Your task to perform on an android device: turn on bluetooth scan Image 0: 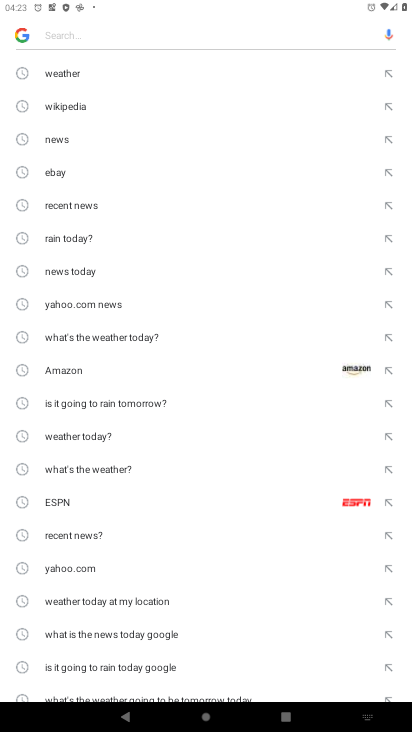
Step 0: press home button
Your task to perform on an android device: turn on bluetooth scan Image 1: 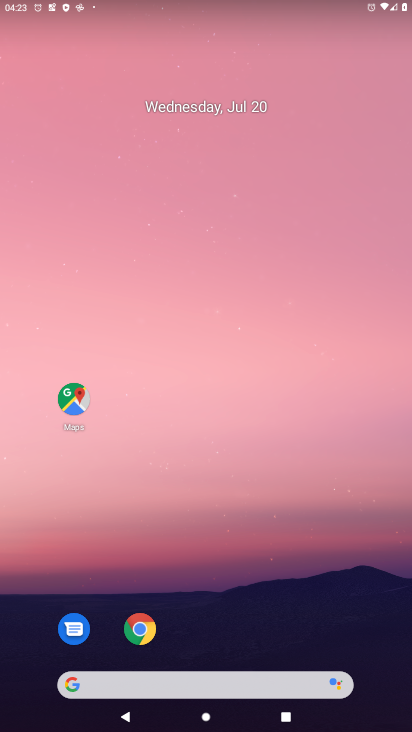
Step 1: drag from (395, 655) to (367, 180)
Your task to perform on an android device: turn on bluetooth scan Image 2: 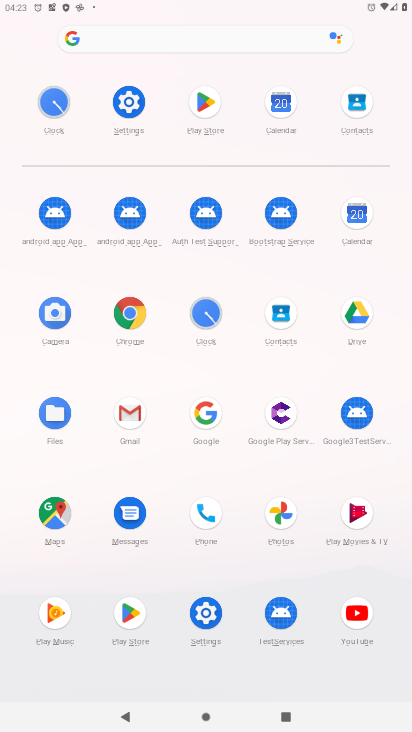
Step 2: click (205, 611)
Your task to perform on an android device: turn on bluetooth scan Image 3: 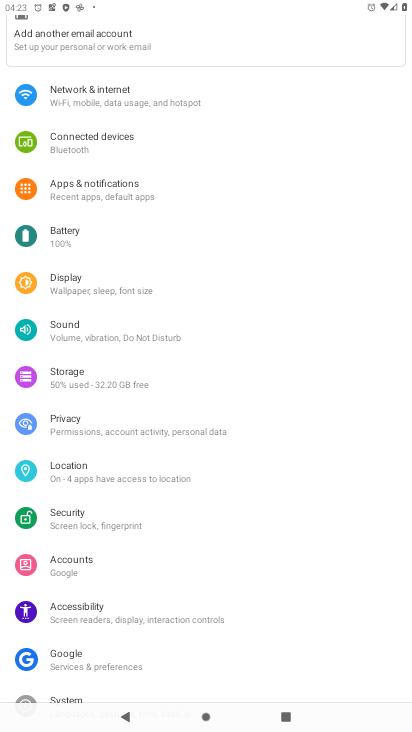
Step 3: click (78, 469)
Your task to perform on an android device: turn on bluetooth scan Image 4: 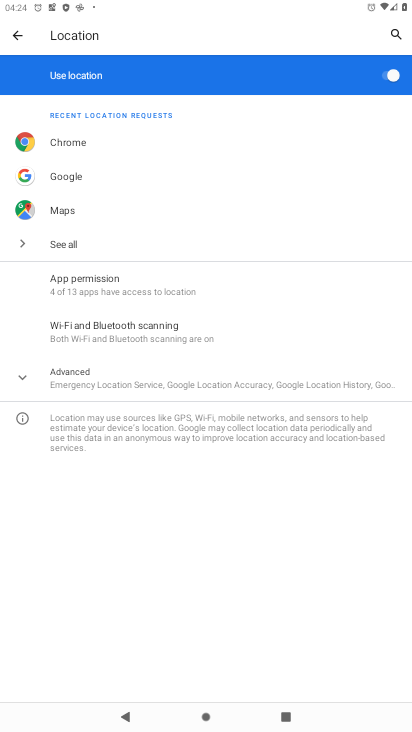
Step 4: click (99, 327)
Your task to perform on an android device: turn on bluetooth scan Image 5: 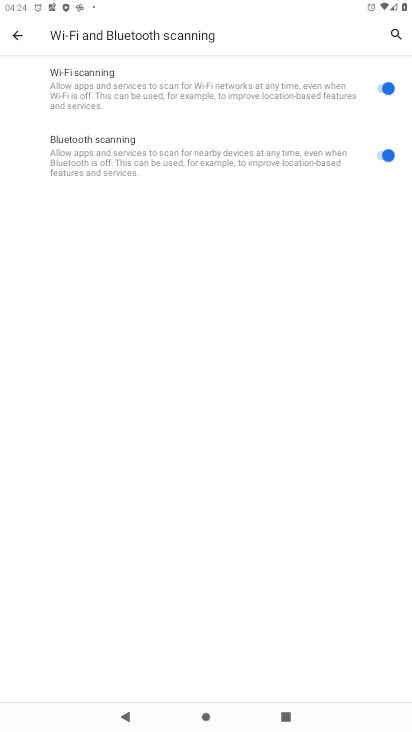
Step 5: task complete